Your task to perform on an android device: star an email in the gmail app Image 0: 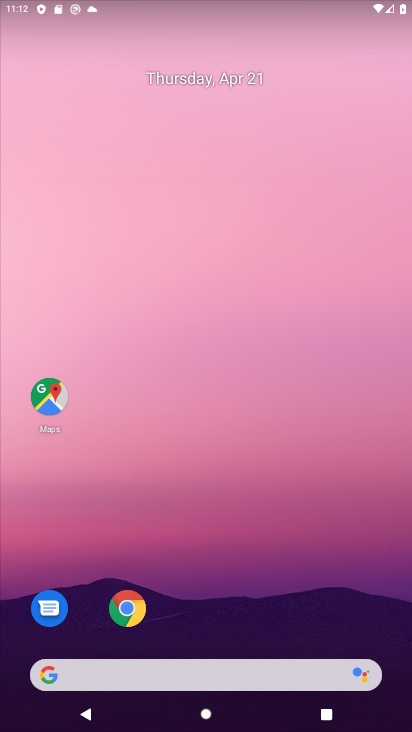
Step 0: drag from (170, 625) to (189, 178)
Your task to perform on an android device: star an email in the gmail app Image 1: 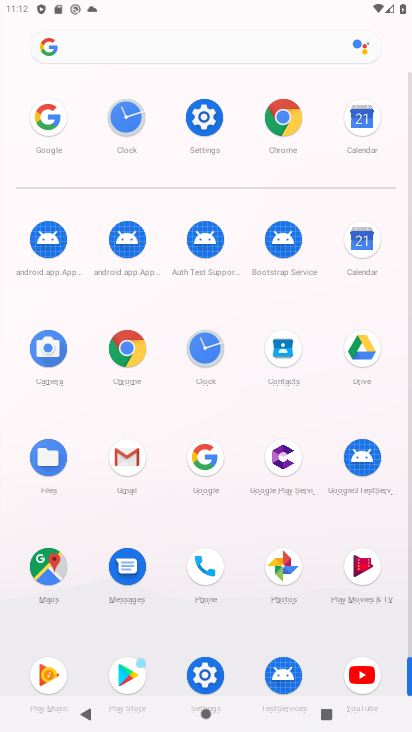
Step 1: click (135, 449)
Your task to perform on an android device: star an email in the gmail app Image 2: 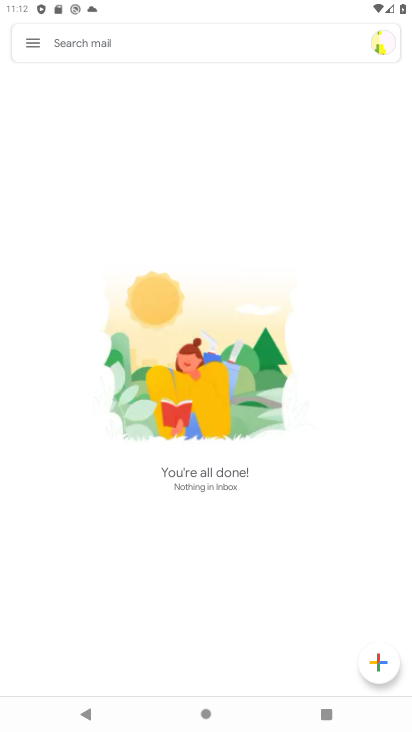
Step 2: click (32, 46)
Your task to perform on an android device: star an email in the gmail app Image 3: 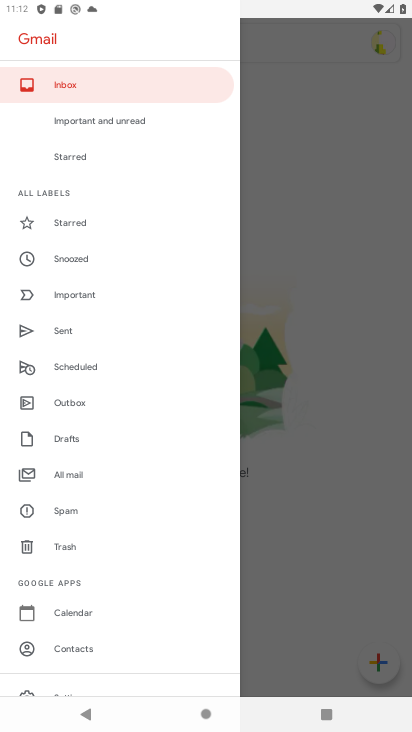
Step 3: click (76, 477)
Your task to perform on an android device: star an email in the gmail app Image 4: 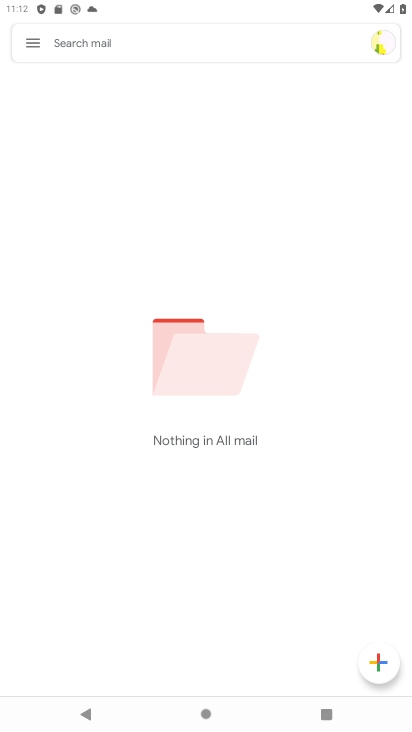
Step 4: task complete